Your task to perform on an android device: Go to Android settings Image 0: 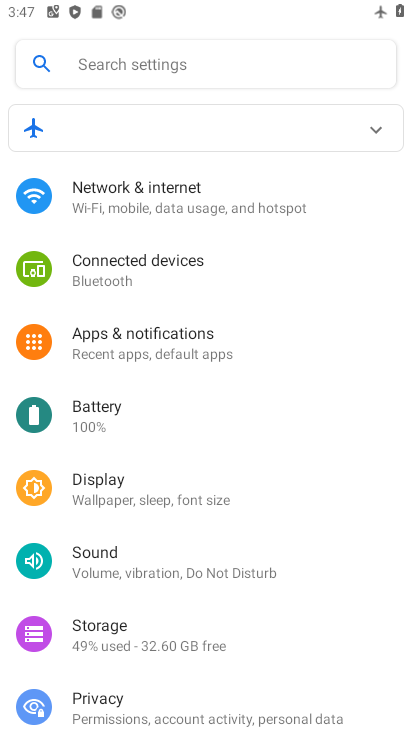
Step 0: task complete